Your task to perform on an android device: Open Google Maps Image 0: 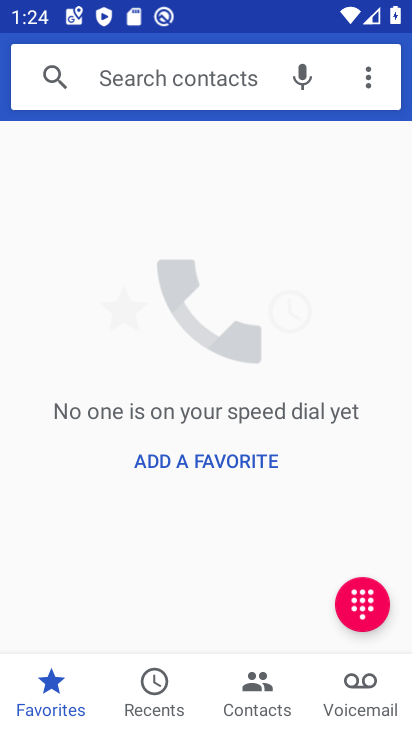
Step 0: press home button
Your task to perform on an android device: Open Google Maps Image 1: 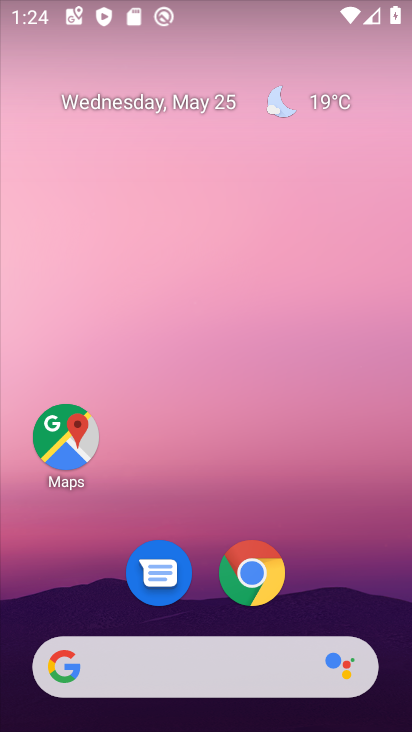
Step 1: click (69, 438)
Your task to perform on an android device: Open Google Maps Image 2: 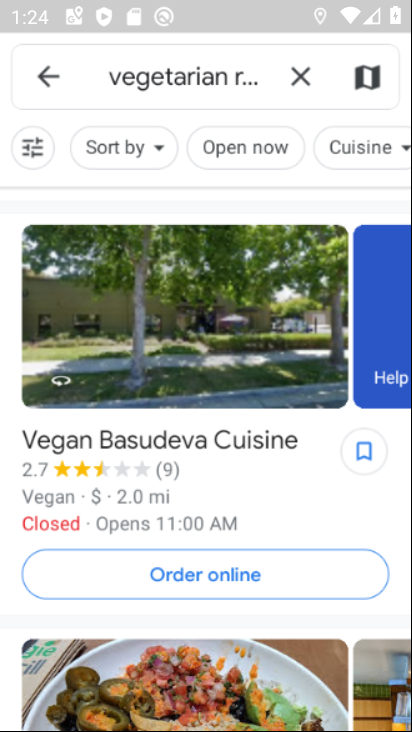
Step 2: click (298, 70)
Your task to perform on an android device: Open Google Maps Image 3: 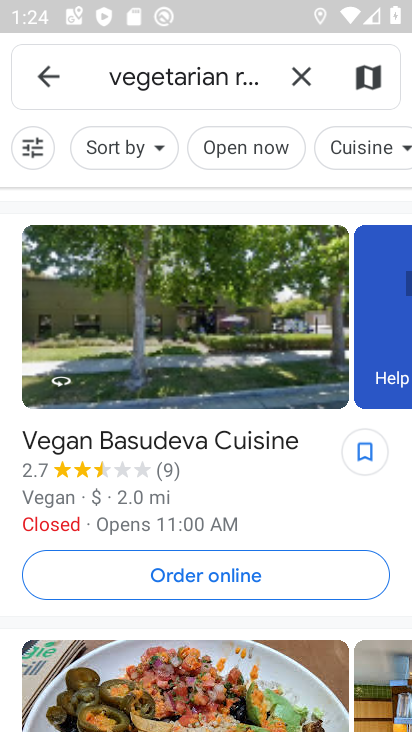
Step 3: click (301, 74)
Your task to perform on an android device: Open Google Maps Image 4: 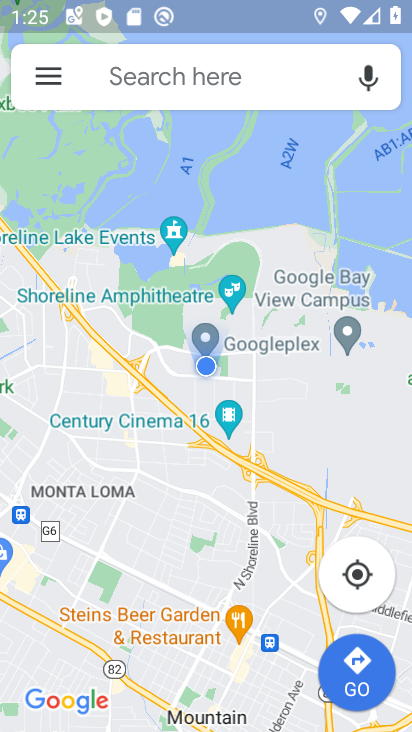
Step 4: task complete